Your task to perform on an android device: open chrome privacy settings Image 0: 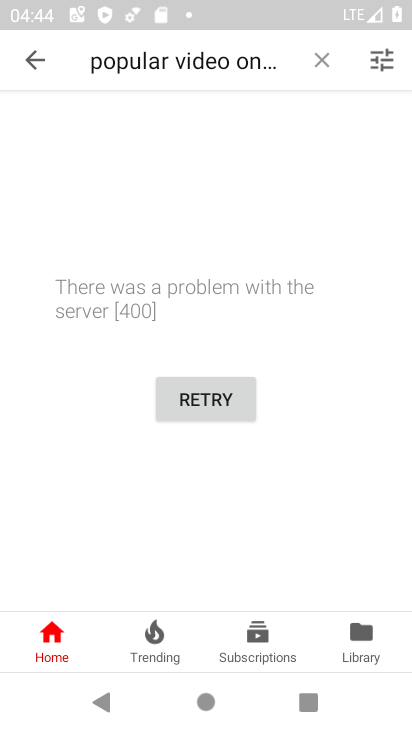
Step 0: press home button
Your task to perform on an android device: open chrome privacy settings Image 1: 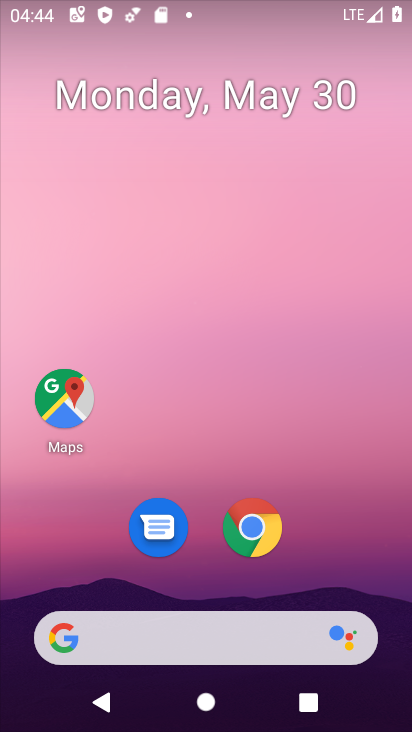
Step 1: click (253, 526)
Your task to perform on an android device: open chrome privacy settings Image 2: 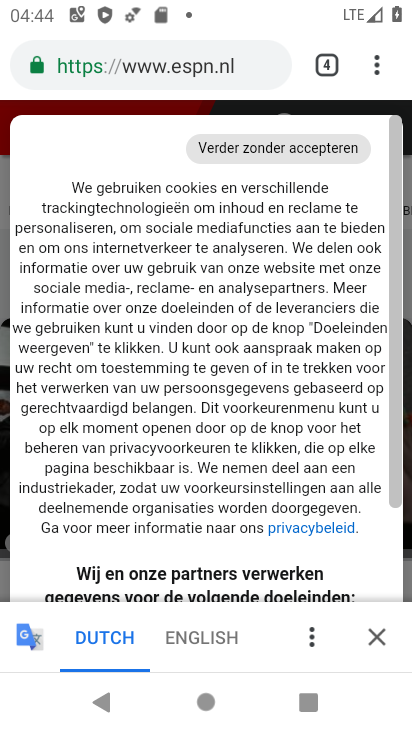
Step 2: click (376, 67)
Your task to perform on an android device: open chrome privacy settings Image 3: 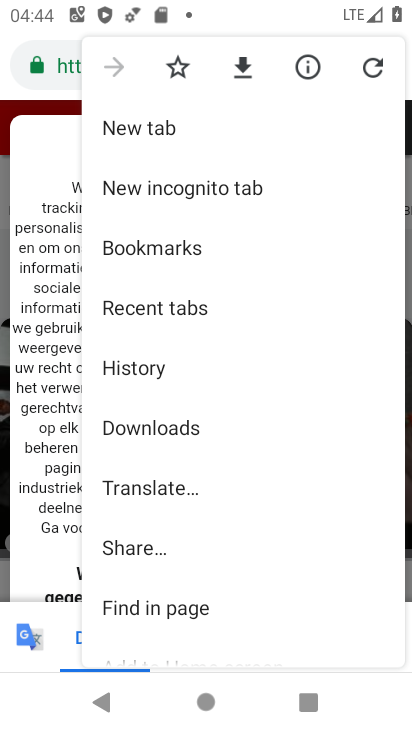
Step 3: drag from (147, 596) to (142, 540)
Your task to perform on an android device: open chrome privacy settings Image 4: 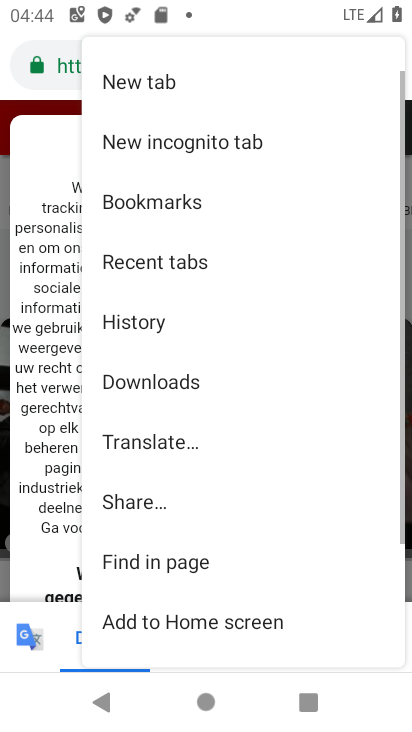
Step 4: drag from (133, 258) to (131, 195)
Your task to perform on an android device: open chrome privacy settings Image 5: 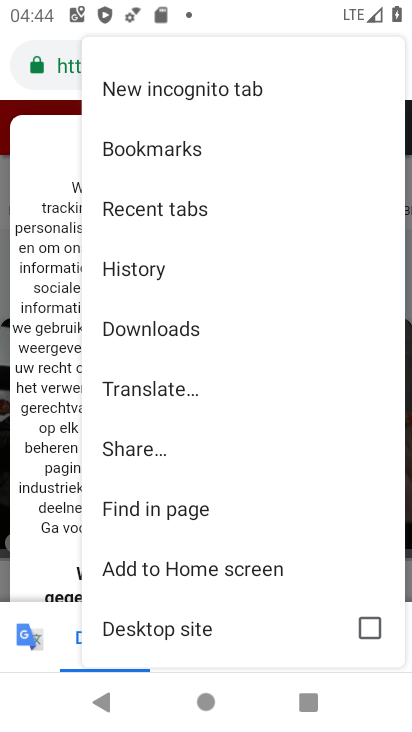
Step 5: drag from (165, 593) to (168, 534)
Your task to perform on an android device: open chrome privacy settings Image 6: 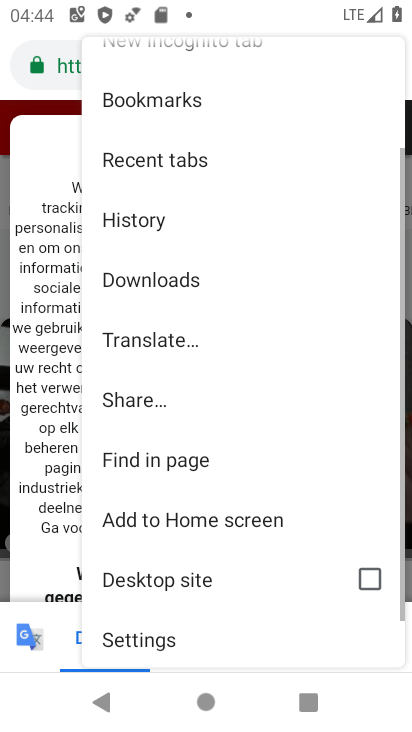
Step 6: drag from (172, 256) to (176, 65)
Your task to perform on an android device: open chrome privacy settings Image 7: 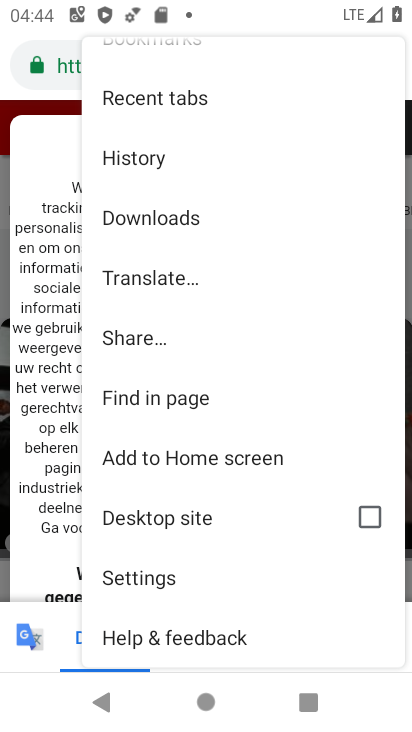
Step 7: click (148, 578)
Your task to perform on an android device: open chrome privacy settings Image 8: 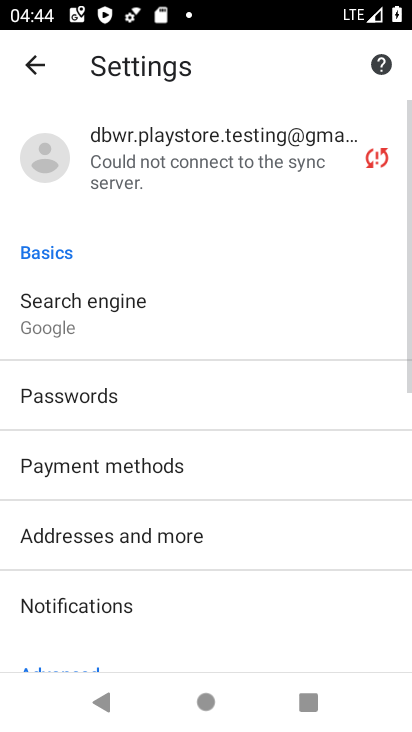
Step 8: drag from (148, 629) to (148, 515)
Your task to perform on an android device: open chrome privacy settings Image 9: 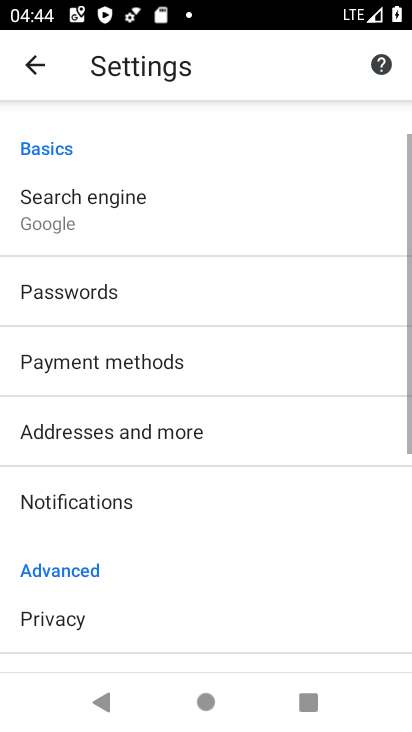
Step 9: drag from (139, 289) to (139, 216)
Your task to perform on an android device: open chrome privacy settings Image 10: 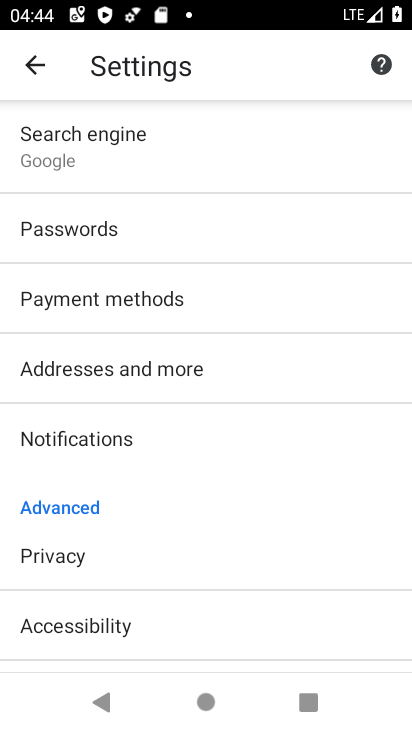
Step 10: click (46, 551)
Your task to perform on an android device: open chrome privacy settings Image 11: 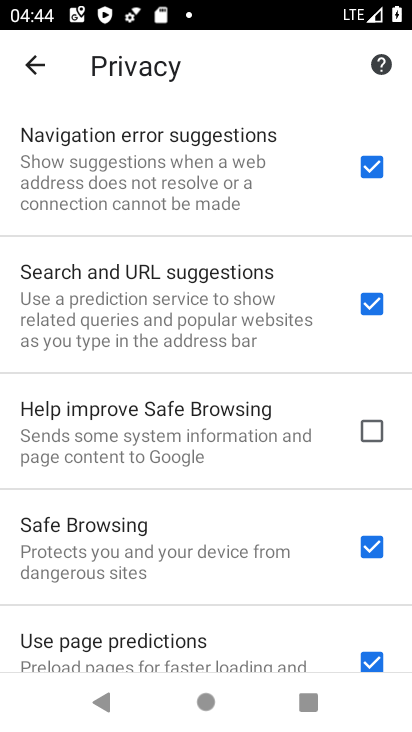
Step 11: task complete